Your task to perform on an android device: add a contact in the contacts app Image 0: 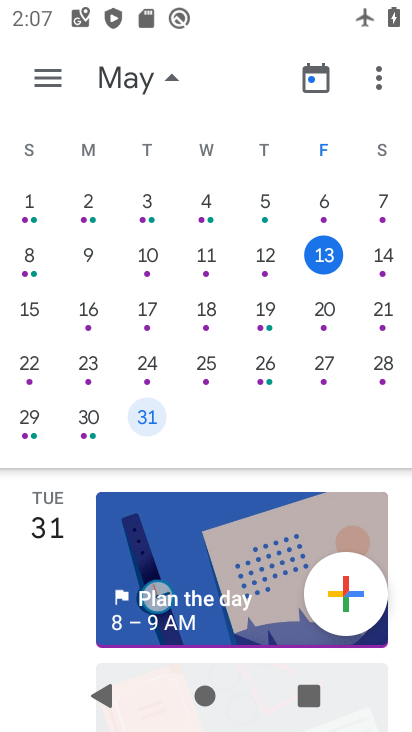
Step 0: press home button
Your task to perform on an android device: add a contact in the contacts app Image 1: 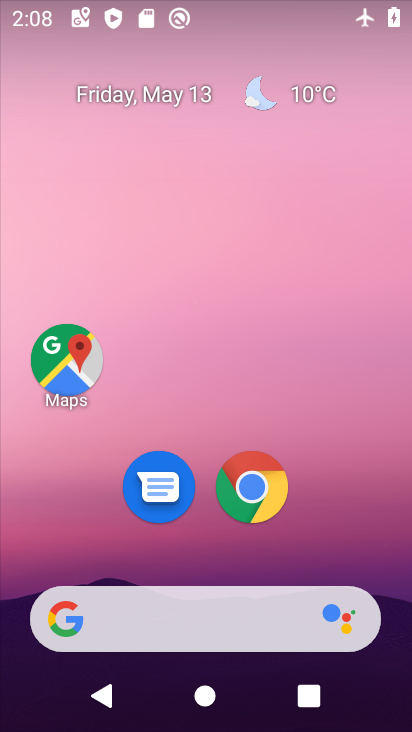
Step 1: drag from (195, 439) to (196, 266)
Your task to perform on an android device: add a contact in the contacts app Image 2: 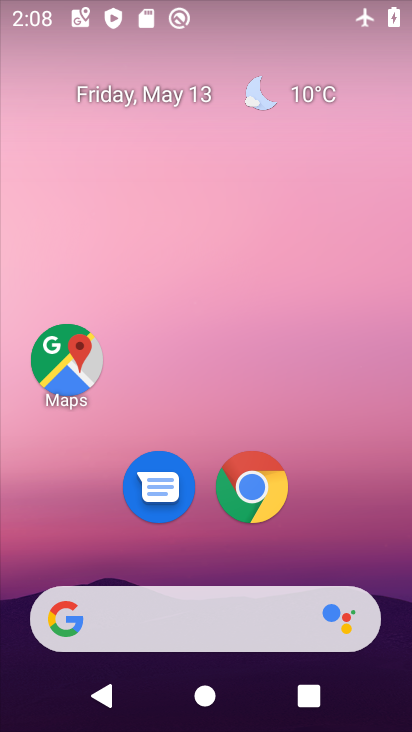
Step 2: drag from (202, 545) to (204, 229)
Your task to perform on an android device: add a contact in the contacts app Image 3: 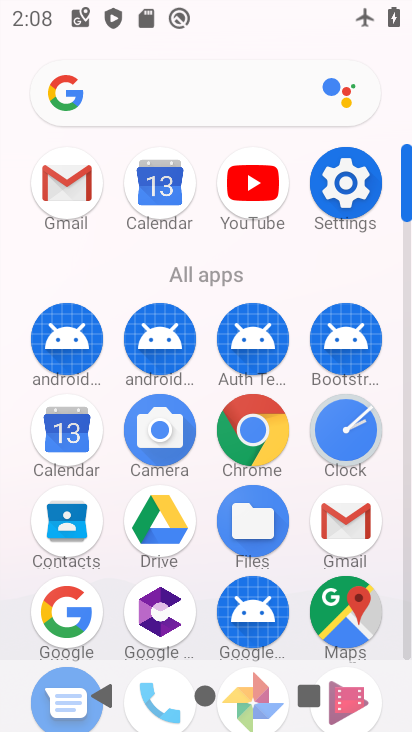
Step 3: click (67, 510)
Your task to perform on an android device: add a contact in the contacts app Image 4: 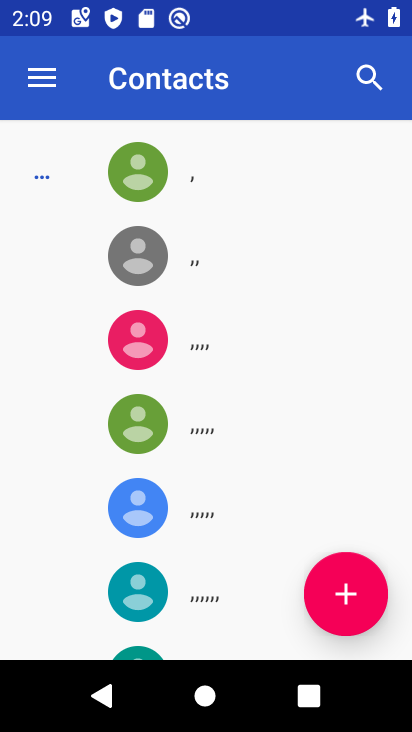
Step 4: click (339, 593)
Your task to perform on an android device: add a contact in the contacts app Image 5: 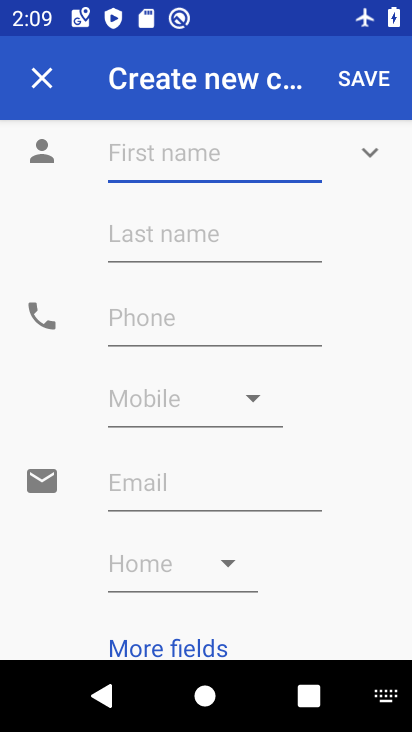
Step 5: type "gvv"
Your task to perform on an android device: add a contact in the contacts app Image 6: 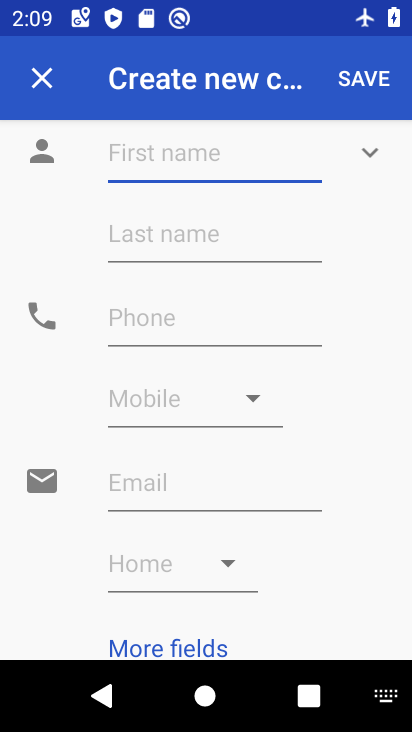
Step 6: click (131, 240)
Your task to perform on an android device: add a contact in the contacts app Image 7: 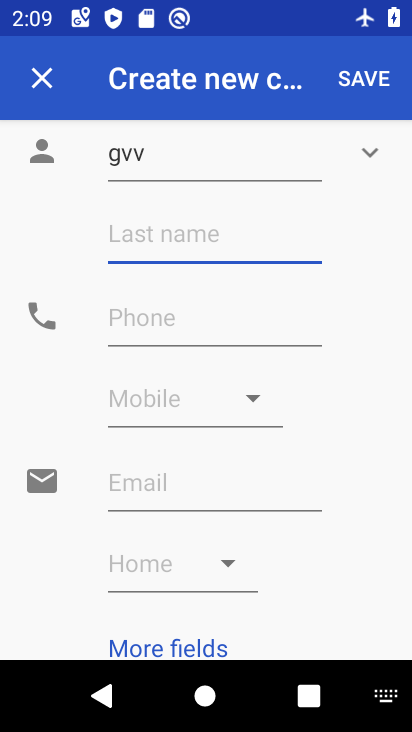
Step 7: type "ghh"
Your task to perform on an android device: add a contact in the contacts app Image 8: 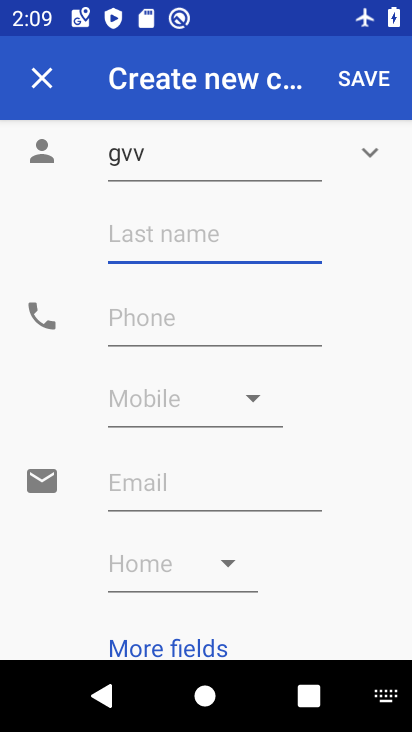
Step 8: click (185, 330)
Your task to perform on an android device: add a contact in the contacts app Image 9: 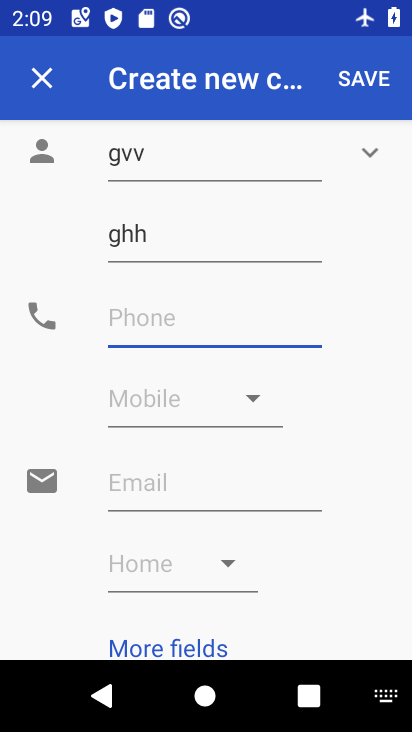
Step 9: type "5657"
Your task to perform on an android device: add a contact in the contacts app Image 10: 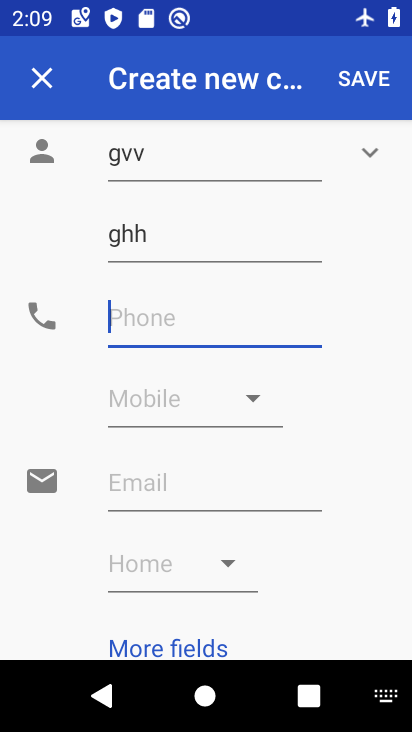
Step 10: click (151, 409)
Your task to perform on an android device: add a contact in the contacts app Image 11: 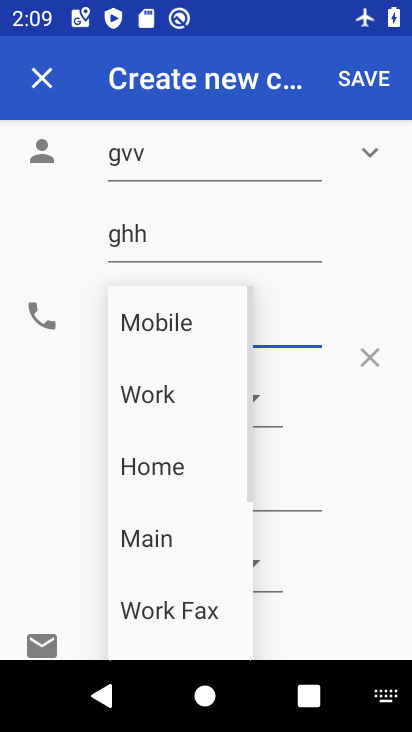
Step 11: click (373, 72)
Your task to perform on an android device: add a contact in the contacts app Image 12: 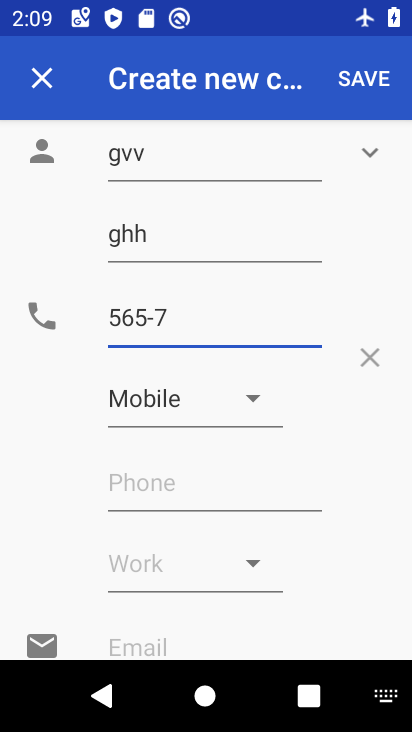
Step 12: click (363, 84)
Your task to perform on an android device: add a contact in the contacts app Image 13: 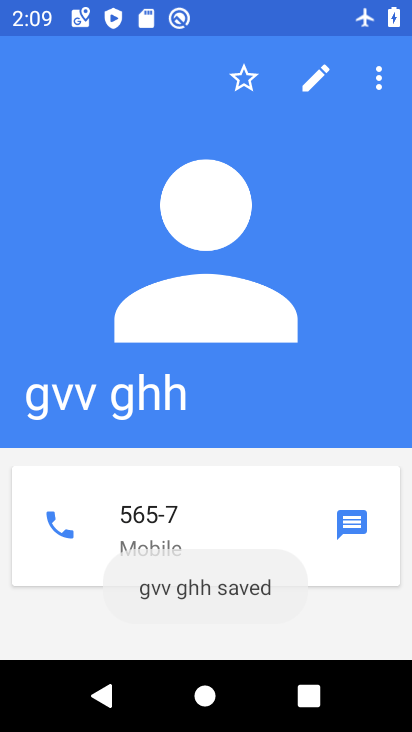
Step 13: task complete